Your task to perform on an android device: Turn off the flashlight Image 0: 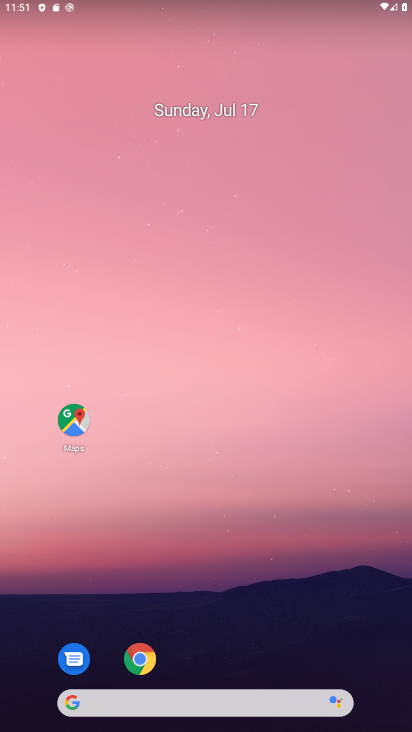
Step 0: drag from (216, 685) to (154, 154)
Your task to perform on an android device: Turn off the flashlight Image 1: 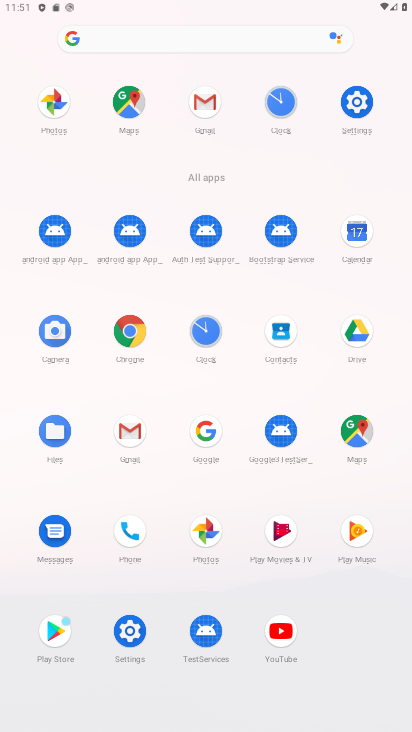
Step 1: task complete